Your task to perform on an android device: toggle sleep mode Image 0: 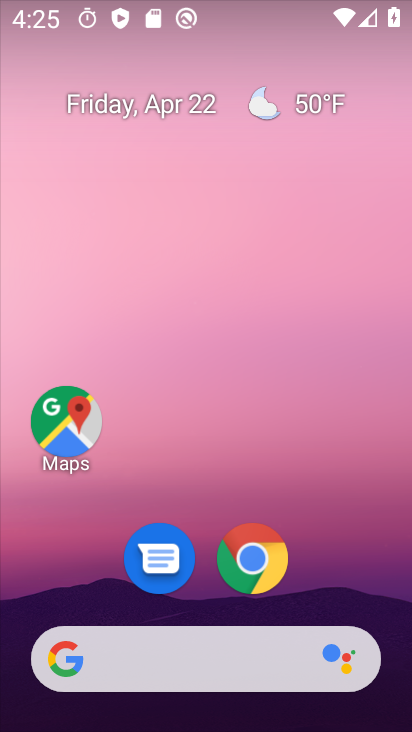
Step 0: drag from (318, 566) to (263, 192)
Your task to perform on an android device: toggle sleep mode Image 1: 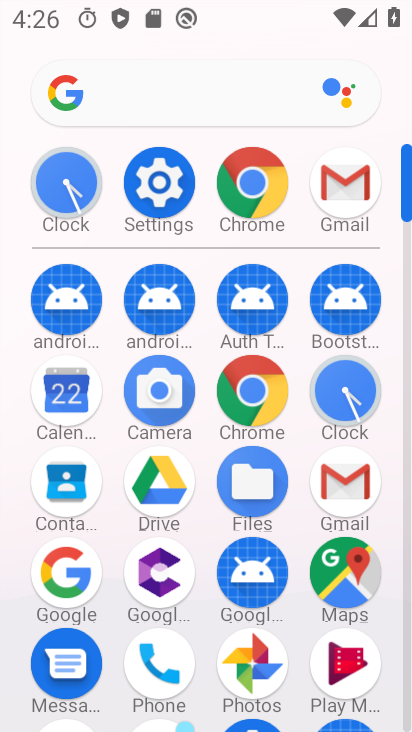
Step 1: click (156, 187)
Your task to perform on an android device: toggle sleep mode Image 2: 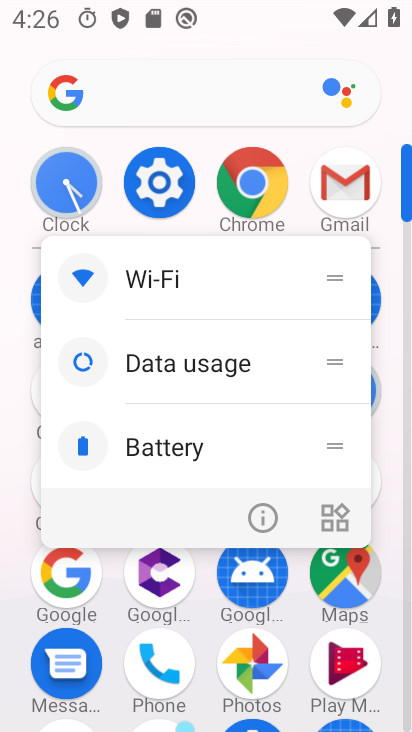
Step 2: click (155, 198)
Your task to perform on an android device: toggle sleep mode Image 3: 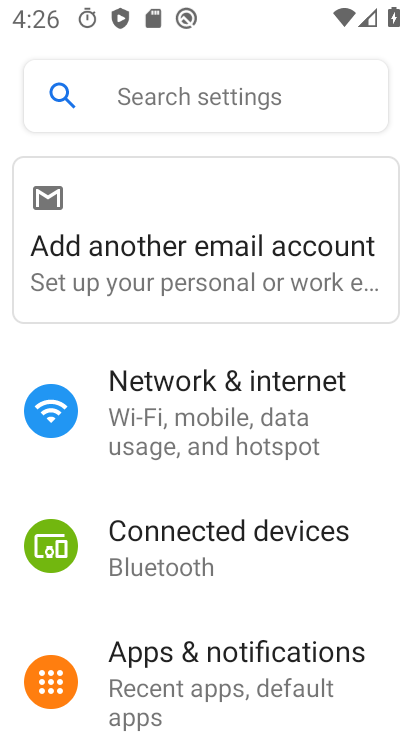
Step 3: task complete